Your task to perform on an android device: Open the map Image 0: 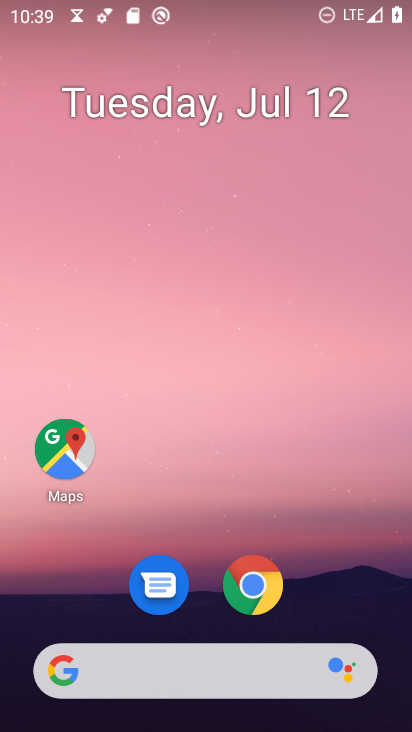
Step 0: press home button
Your task to perform on an android device: Open the map Image 1: 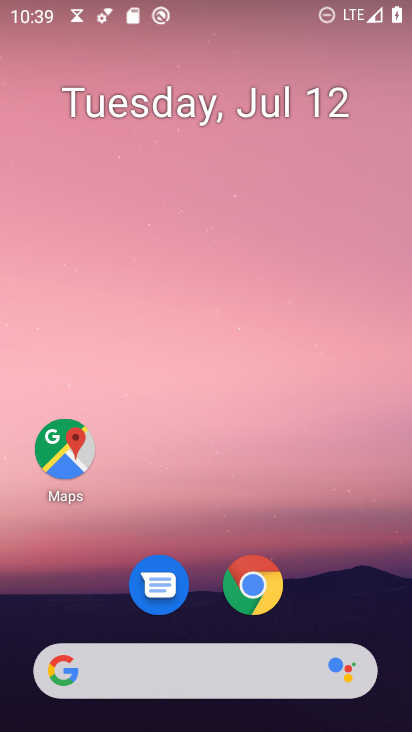
Step 1: click (60, 467)
Your task to perform on an android device: Open the map Image 2: 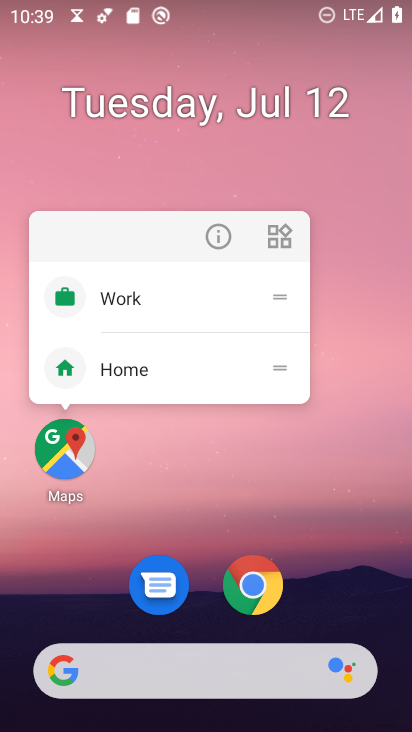
Step 2: click (65, 460)
Your task to perform on an android device: Open the map Image 3: 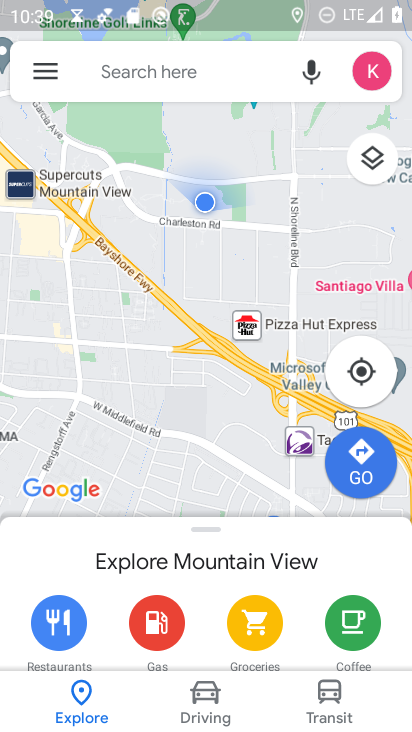
Step 3: task complete